Your task to perform on an android device: open app "Microsoft Authenticator" (install if not already installed), go to login, and select forgot password Image 0: 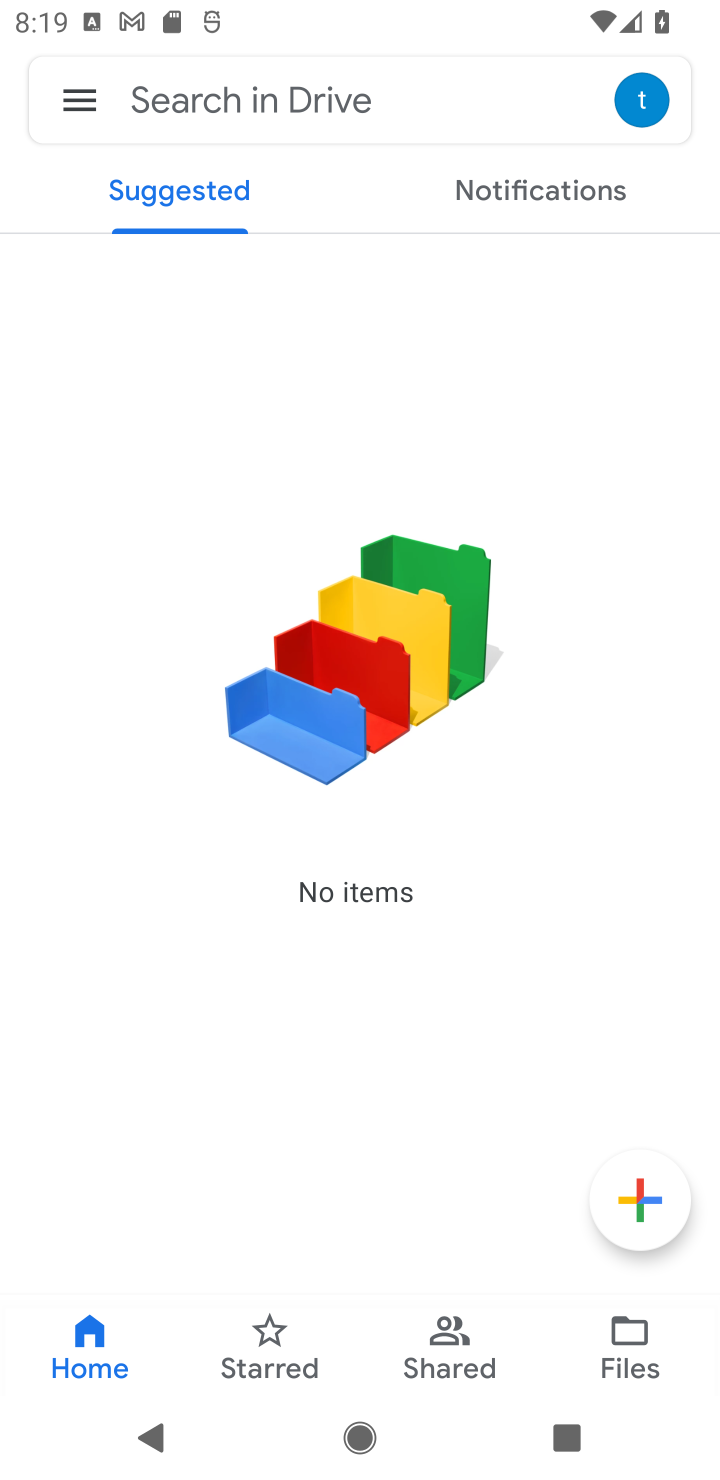
Step 0: press home button
Your task to perform on an android device: open app "Microsoft Authenticator" (install if not already installed), go to login, and select forgot password Image 1: 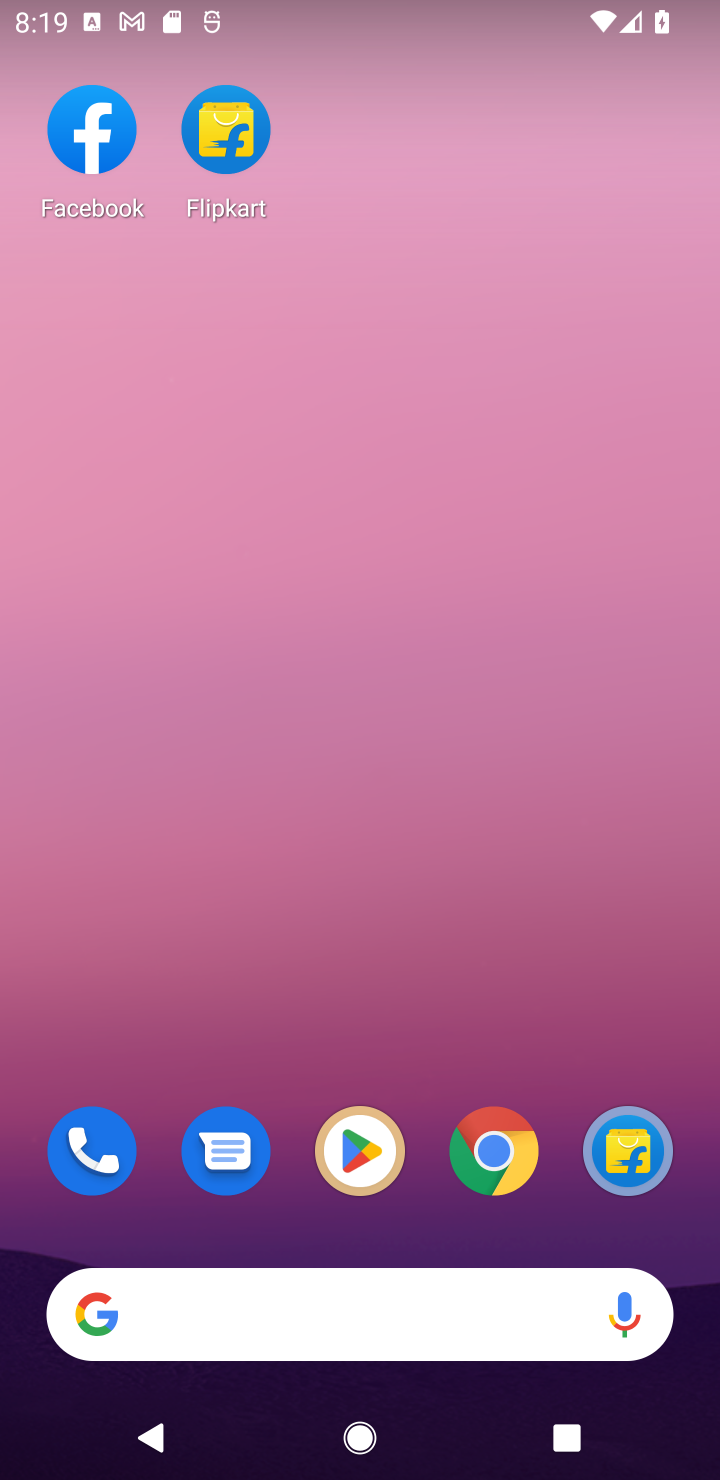
Step 1: press home button
Your task to perform on an android device: open app "Microsoft Authenticator" (install if not already installed), go to login, and select forgot password Image 2: 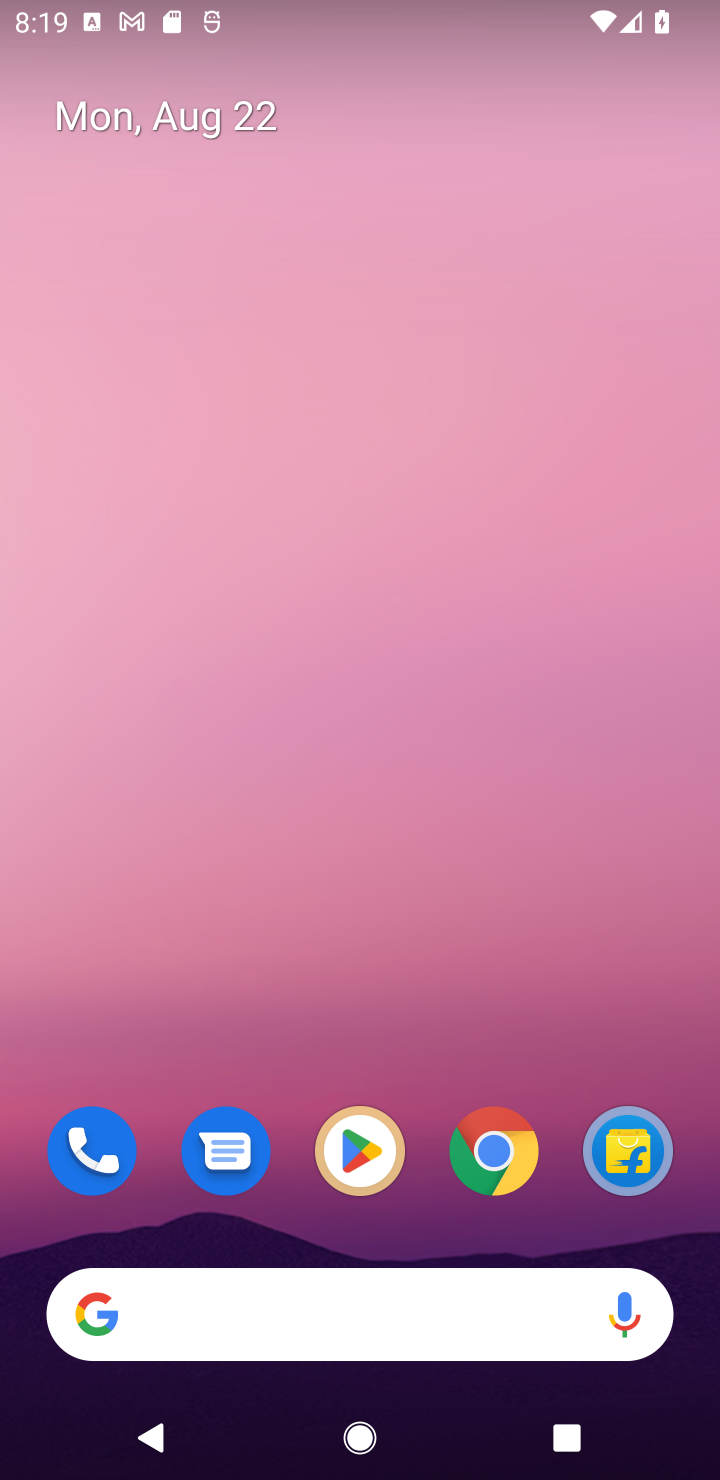
Step 2: click (364, 1150)
Your task to perform on an android device: open app "Microsoft Authenticator" (install if not already installed), go to login, and select forgot password Image 3: 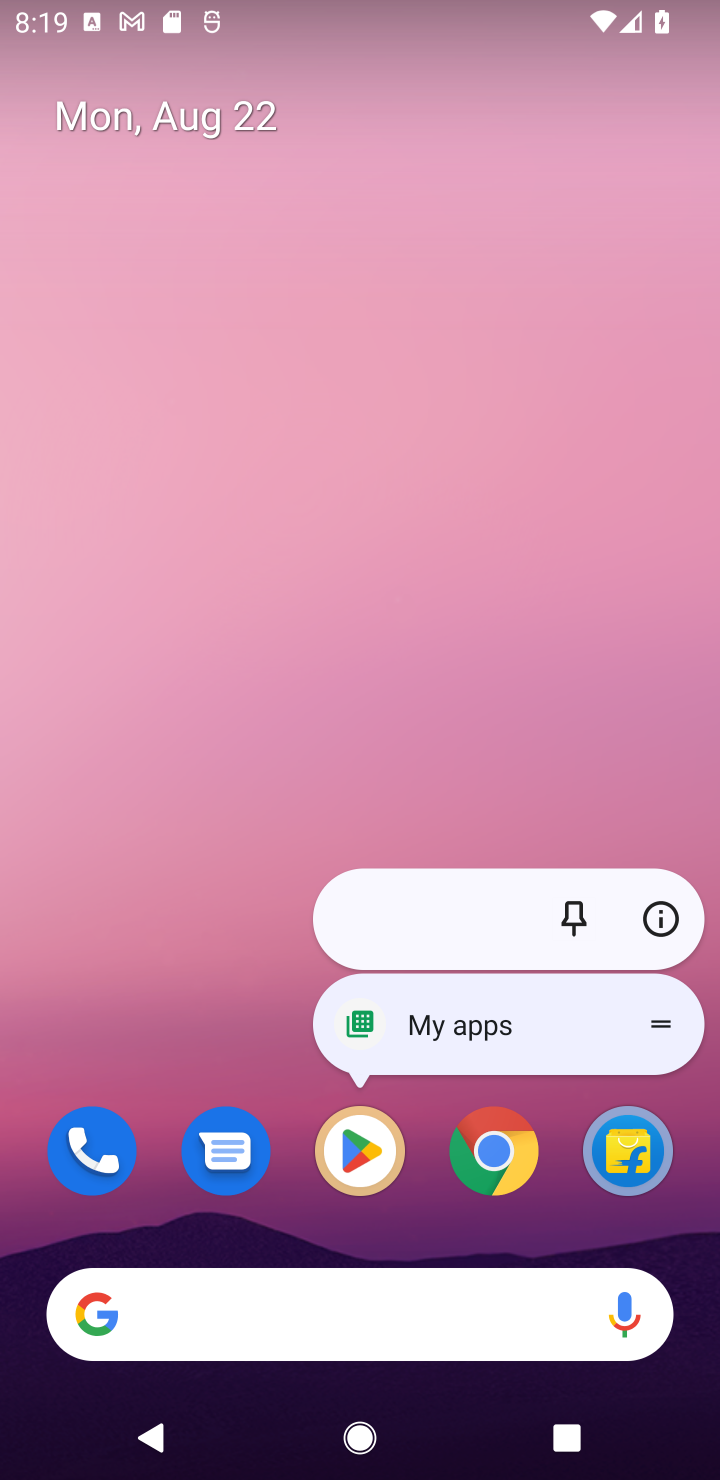
Step 3: click (352, 1145)
Your task to perform on an android device: open app "Microsoft Authenticator" (install if not already installed), go to login, and select forgot password Image 4: 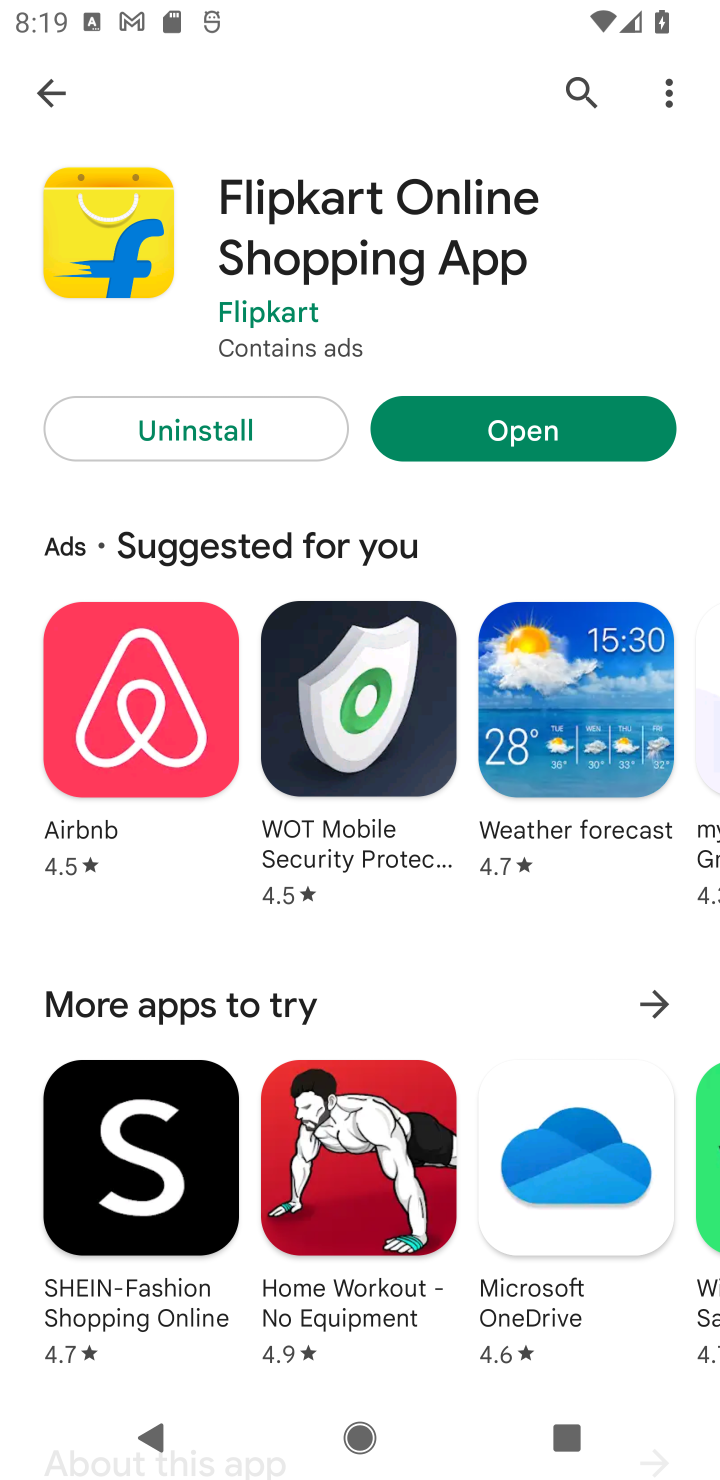
Step 4: click (575, 82)
Your task to perform on an android device: open app "Microsoft Authenticator" (install if not already installed), go to login, and select forgot password Image 5: 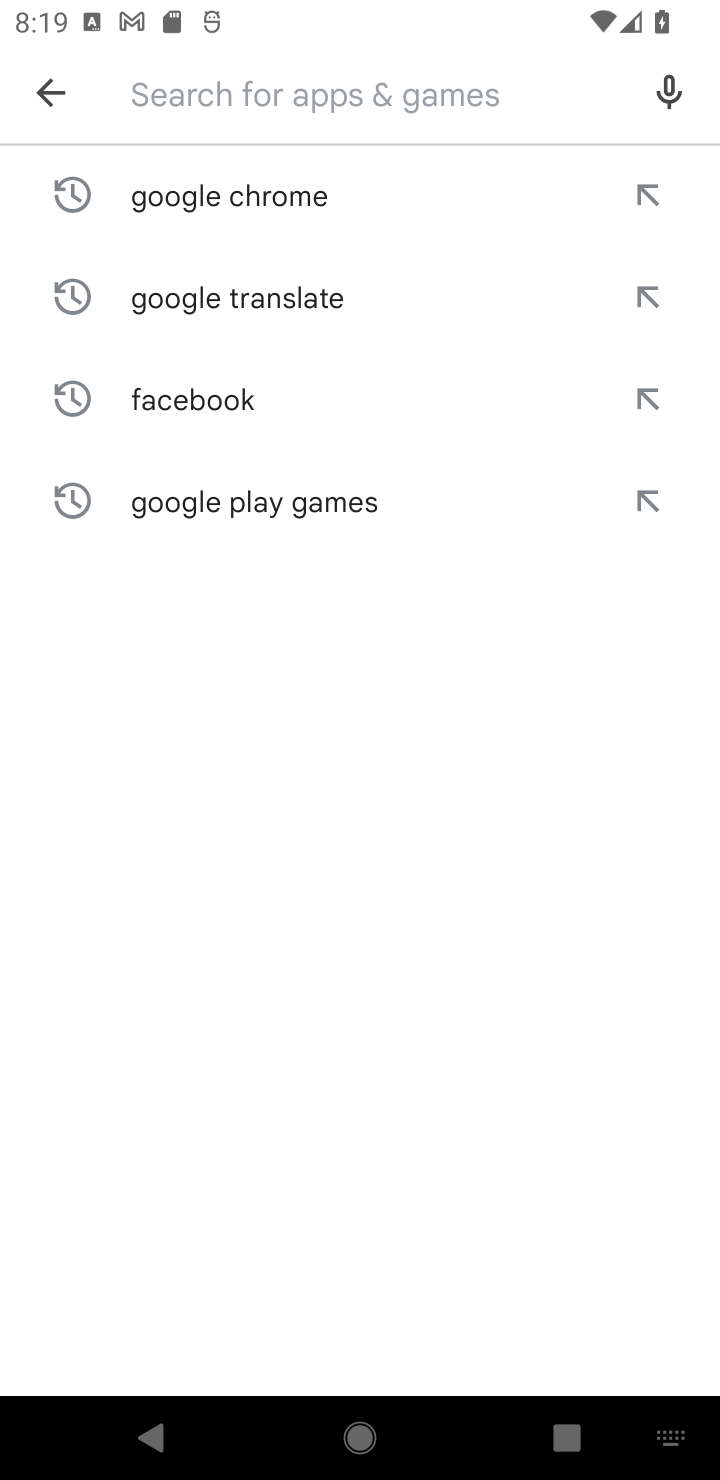
Step 5: type "Microsoft Authenticator"
Your task to perform on an android device: open app "Microsoft Authenticator" (install if not already installed), go to login, and select forgot password Image 6: 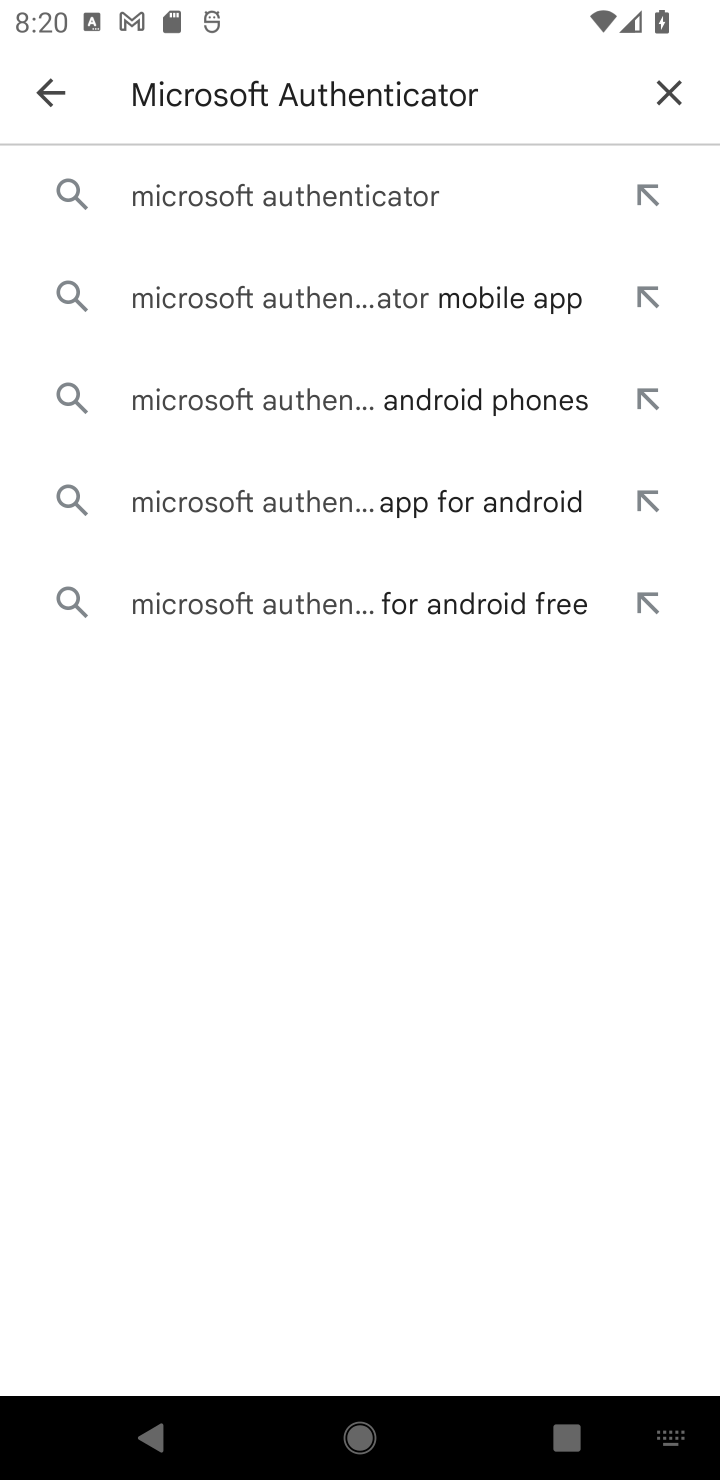
Step 6: click (328, 198)
Your task to perform on an android device: open app "Microsoft Authenticator" (install if not already installed), go to login, and select forgot password Image 7: 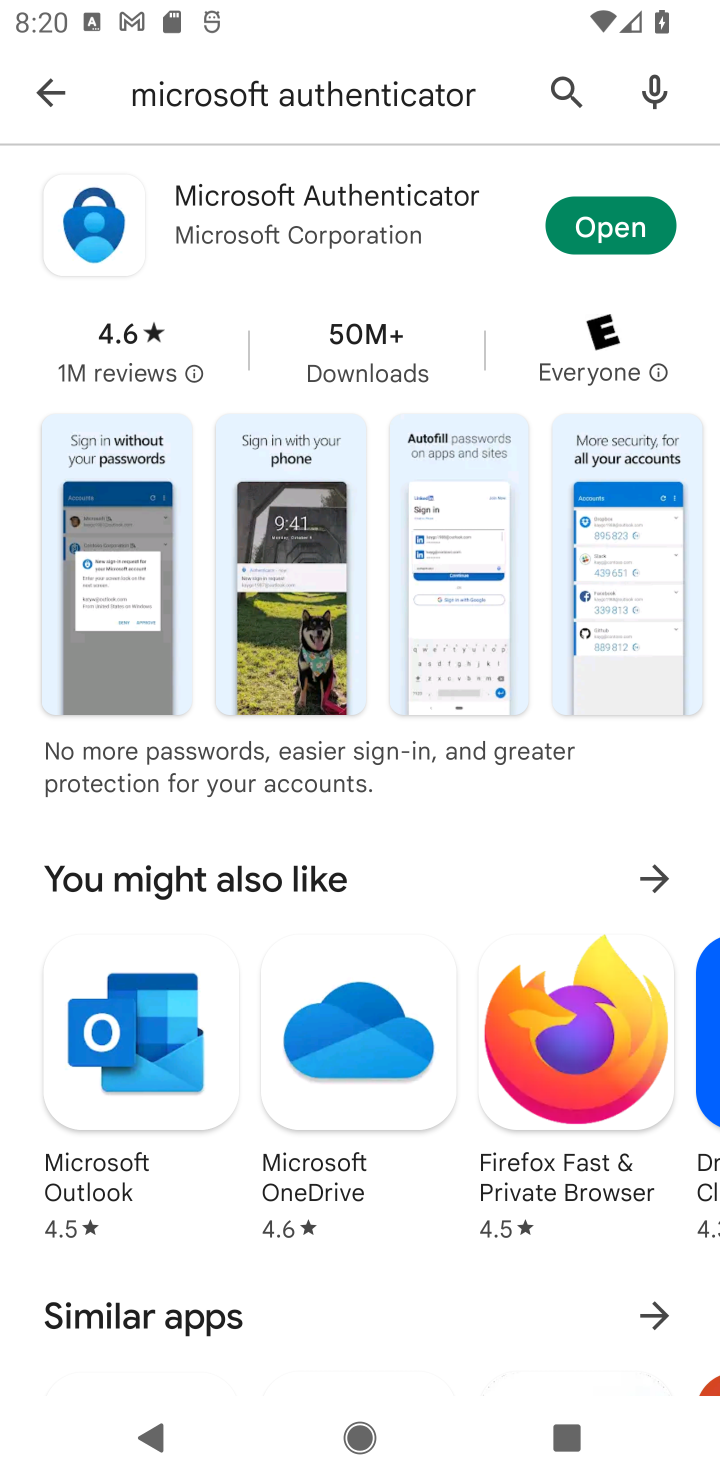
Step 7: click (620, 235)
Your task to perform on an android device: open app "Microsoft Authenticator" (install if not already installed), go to login, and select forgot password Image 8: 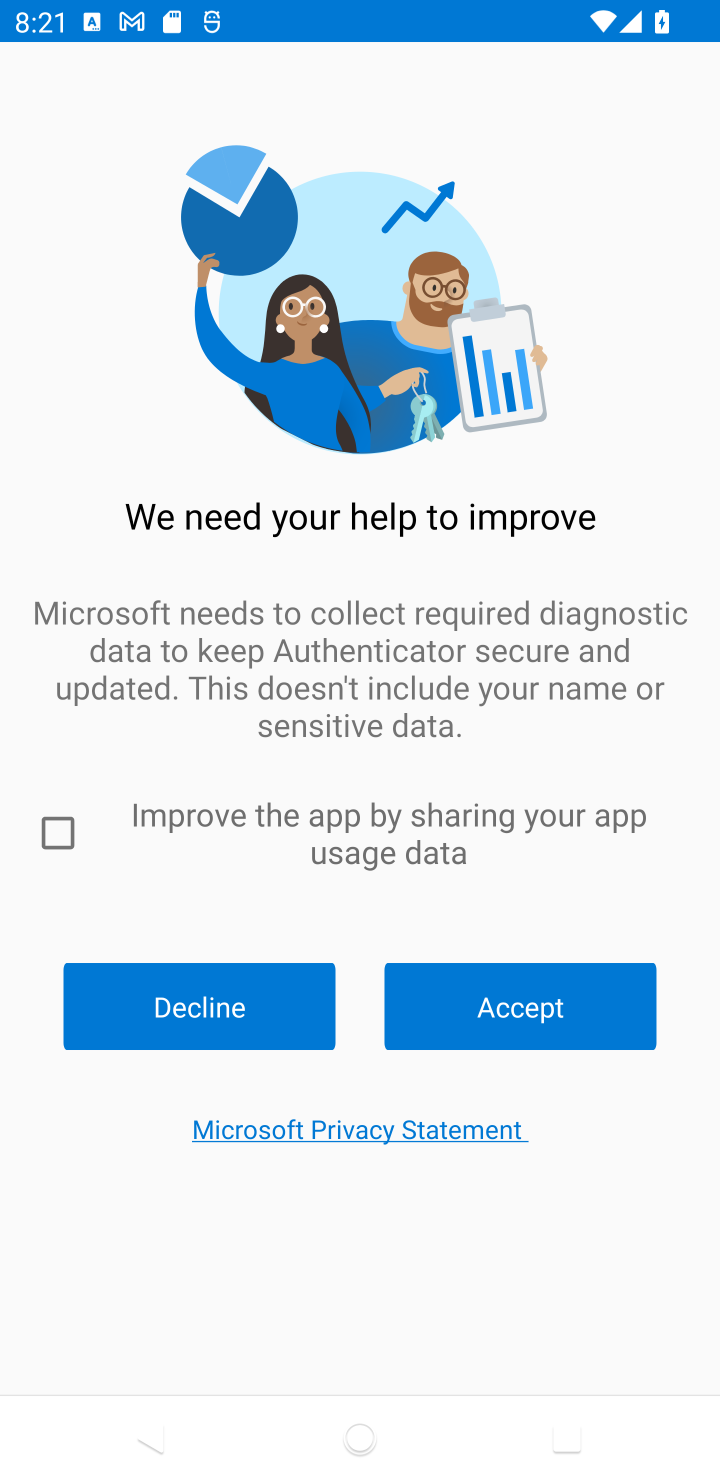
Step 8: task complete